Your task to perform on an android device: change the upload size in google photos Image 0: 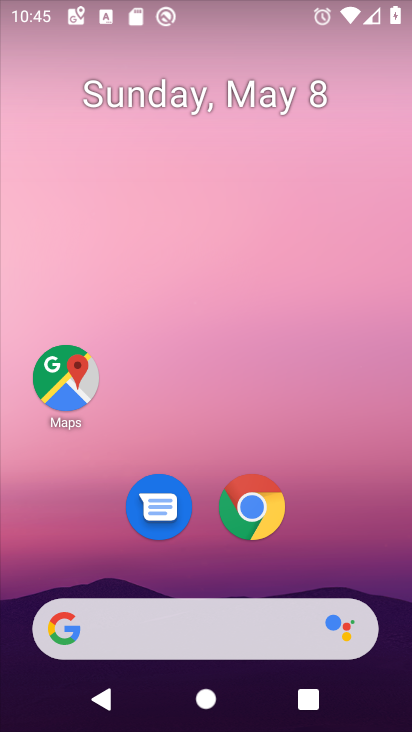
Step 0: drag from (244, 689) to (241, 147)
Your task to perform on an android device: change the upload size in google photos Image 1: 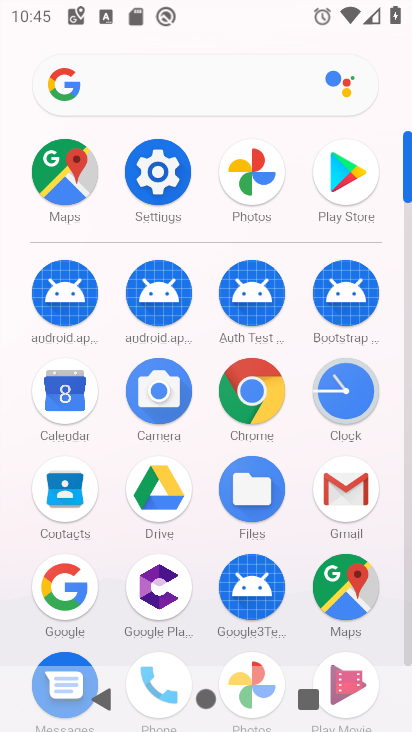
Step 1: click (259, 664)
Your task to perform on an android device: change the upload size in google photos Image 2: 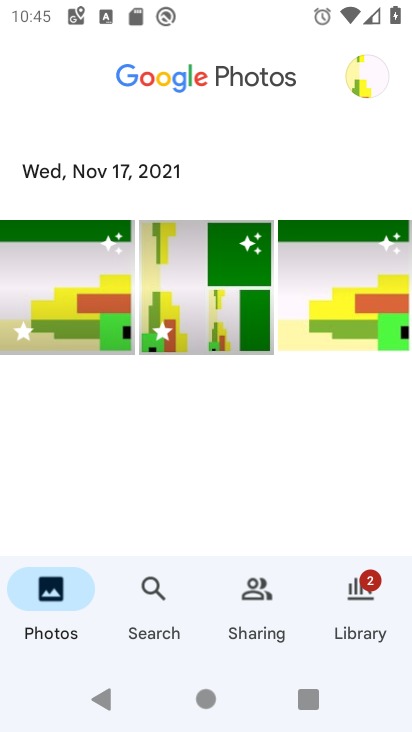
Step 2: click (371, 83)
Your task to perform on an android device: change the upload size in google photos Image 3: 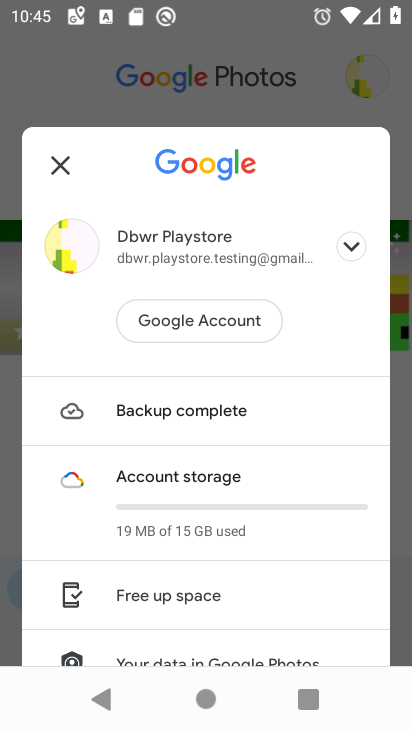
Step 3: click (260, 261)
Your task to perform on an android device: change the upload size in google photos Image 4: 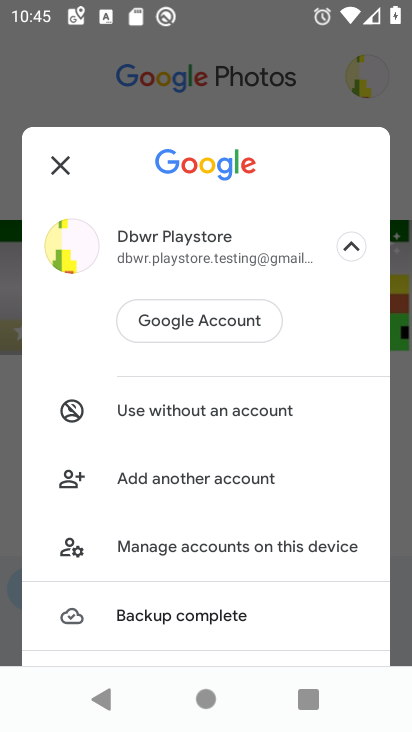
Step 4: click (203, 232)
Your task to perform on an android device: change the upload size in google photos Image 5: 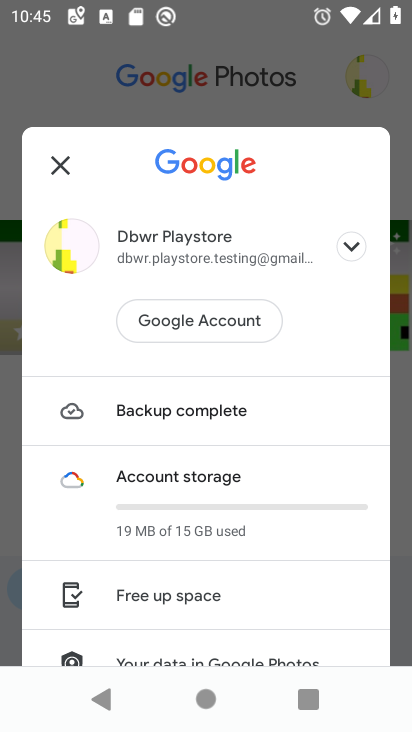
Step 5: click (176, 255)
Your task to perform on an android device: change the upload size in google photos Image 6: 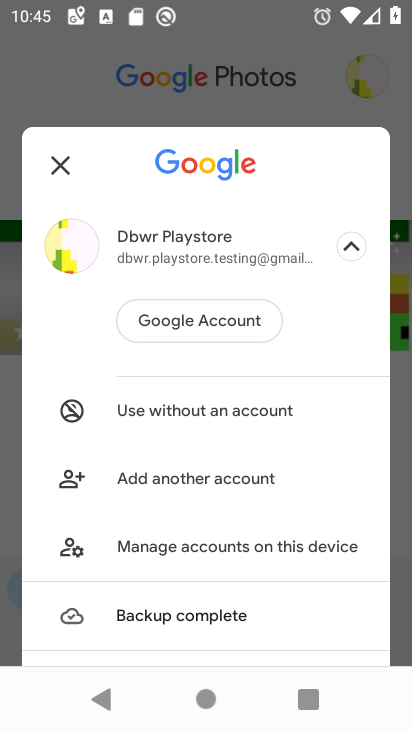
Step 6: click (185, 249)
Your task to perform on an android device: change the upload size in google photos Image 7: 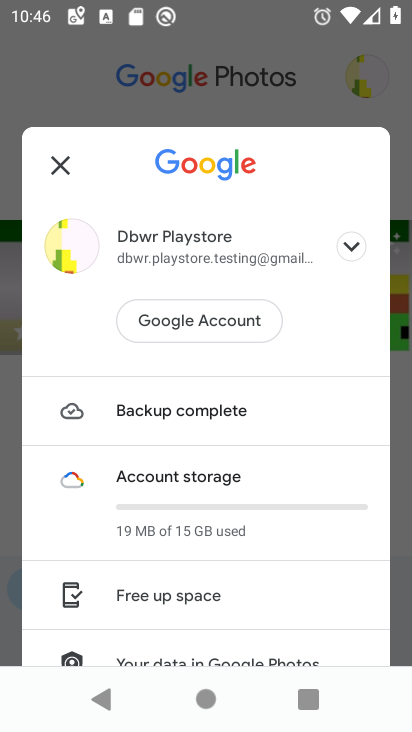
Step 7: click (219, 260)
Your task to perform on an android device: change the upload size in google photos Image 8: 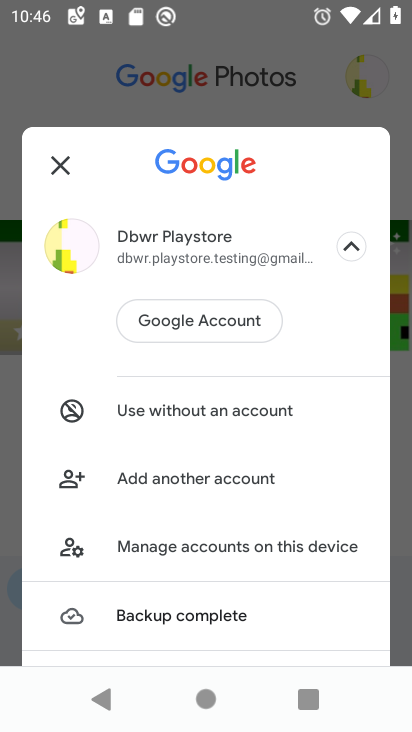
Step 8: drag from (334, 616) to (280, 141)
Your task to perform on an android device: change the upload size in google photos Image 9: 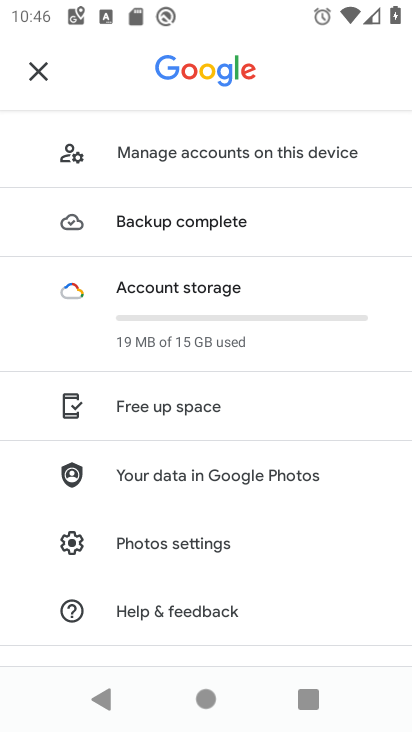
Step 9: click (217, 546)
Your task to perform on an android device: change the upload size in google photos Image 10: 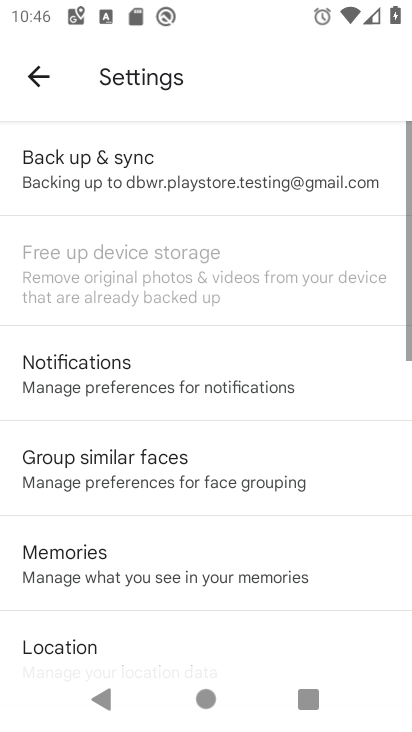
Step 10: click (278, 149)
Your task to perform on an android device: change the upload size in google photos Image 11: 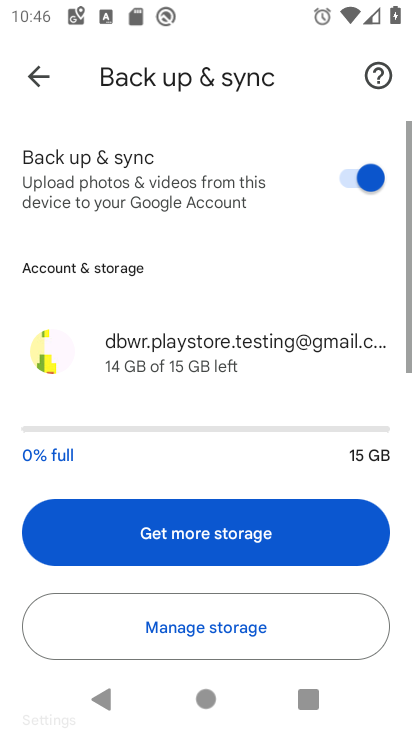
Step 11: drag from (277, 433) to (302, 43)
Your task to perform on an android device: change the upload size in google photos Image 12: 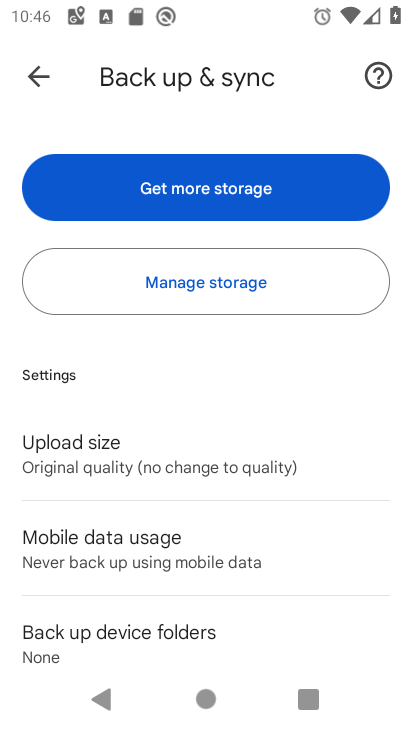
Step 12: click (173, 454)
Your task to perform on an android device: change the upload size in google photos Image 13: 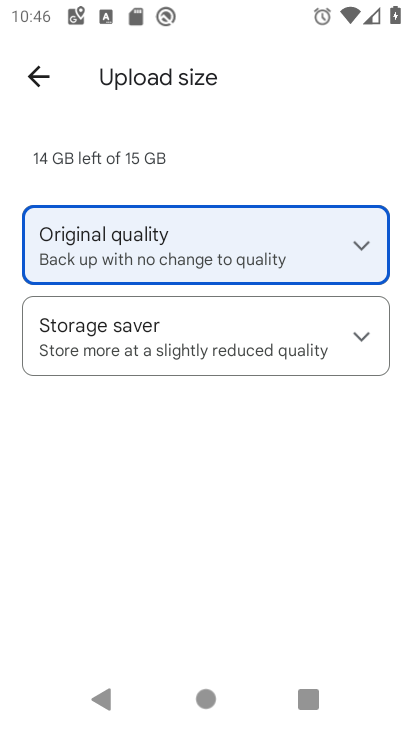
Step 13: click (145, 330)
Your task to perform on an android device: change the upload size in google photos Image 14: 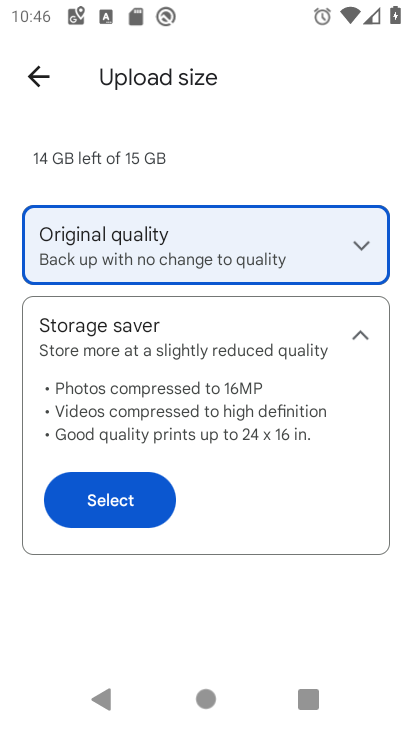
Step 14: click (105, 513)
Your task to perform on an android device: change the upload size in google photos Image 15: 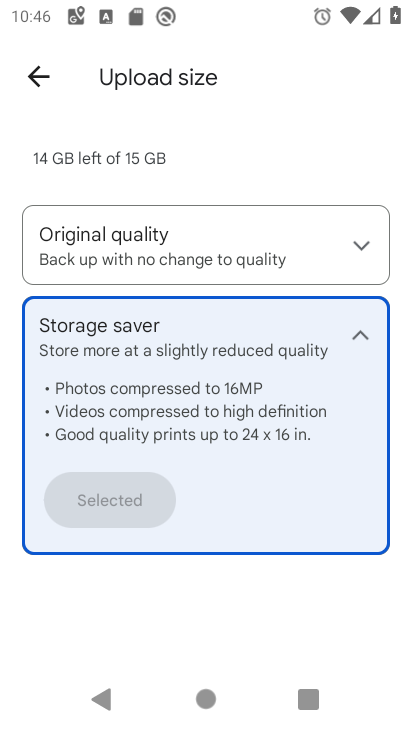
Step 15: task complete